Your task to perform on an android device: Where can I buy a nice beach hat? Image 0: 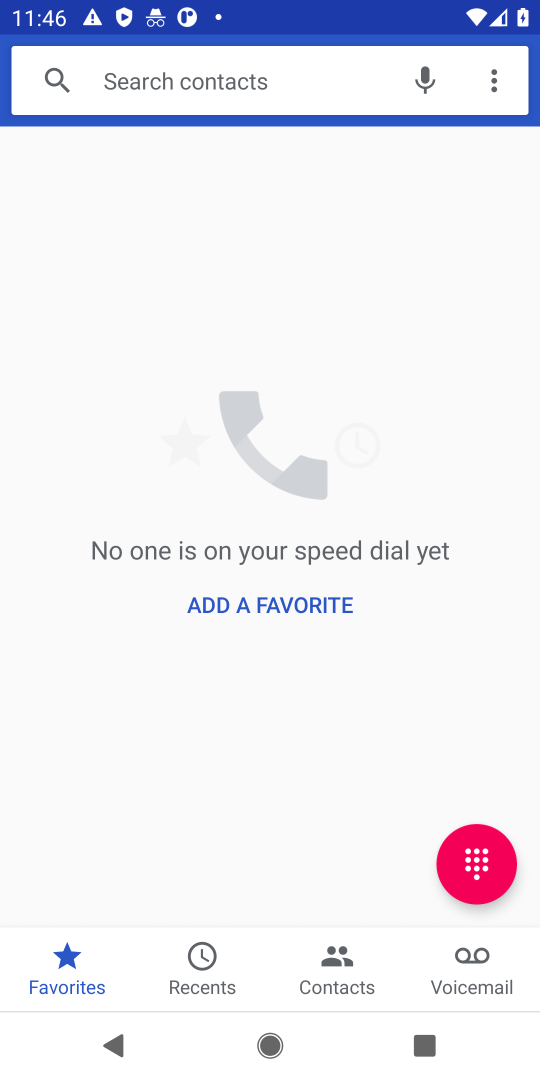
Step 0: press home button
Your task to perform on an android device: Where can I buy a nice beach hat? Image 1: 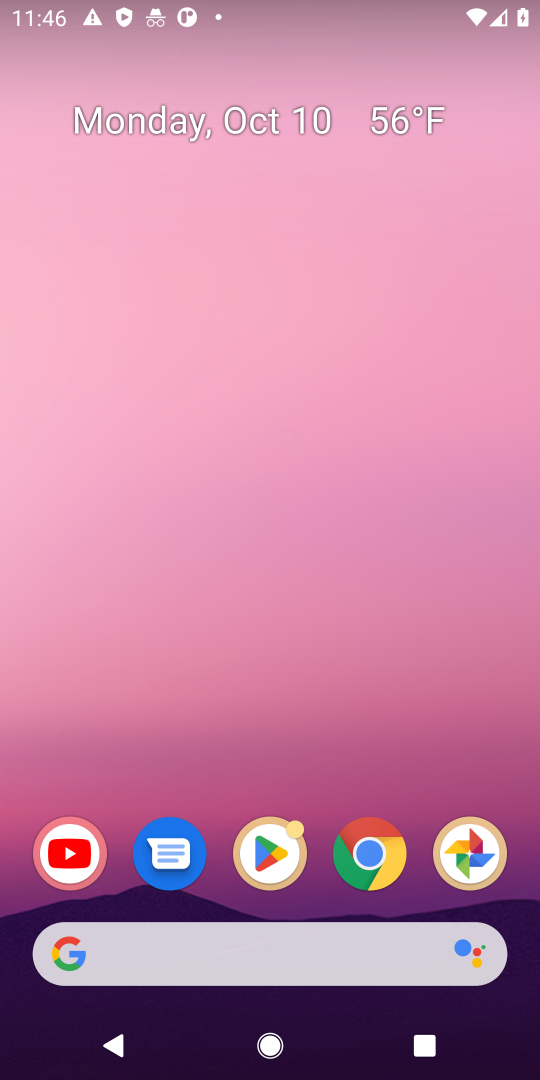
Step 1: click (376, 849)
Your task to perform on an android device: Where can I buy a nice beach hat? Image 2: 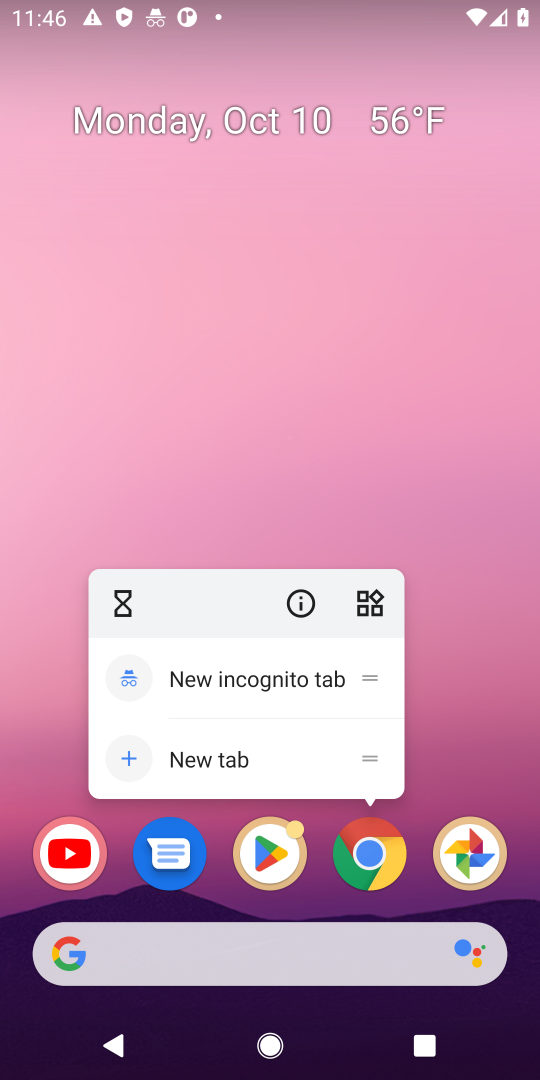
Step 2: click (367, 853)
Your task to perform on an android device: Where can I buy a nice beach hat? Image 3: 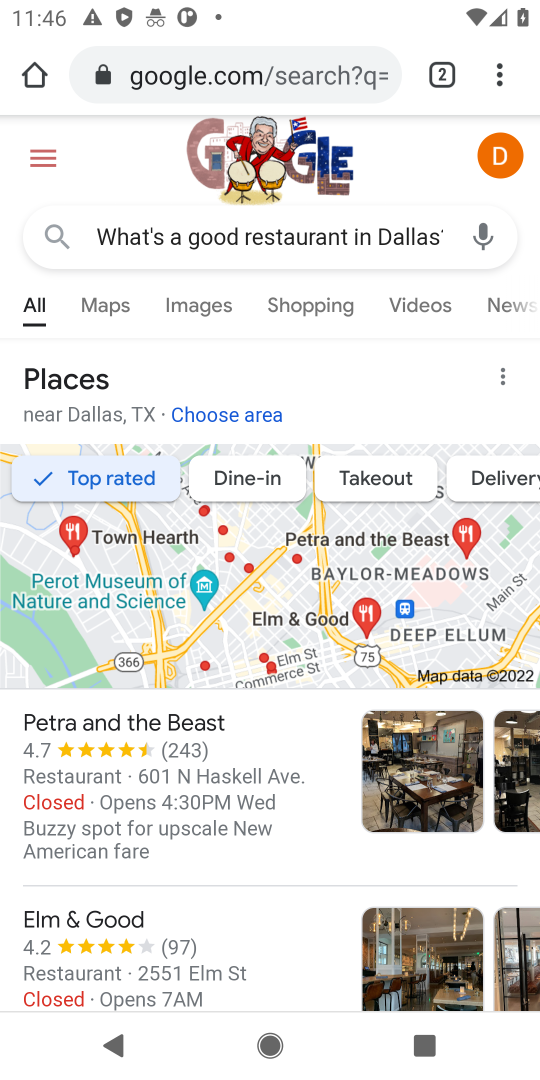
Step 3: click (154, 86)
Your task to perform on an android device: Where can I buy a nice beach hat? Image 4: 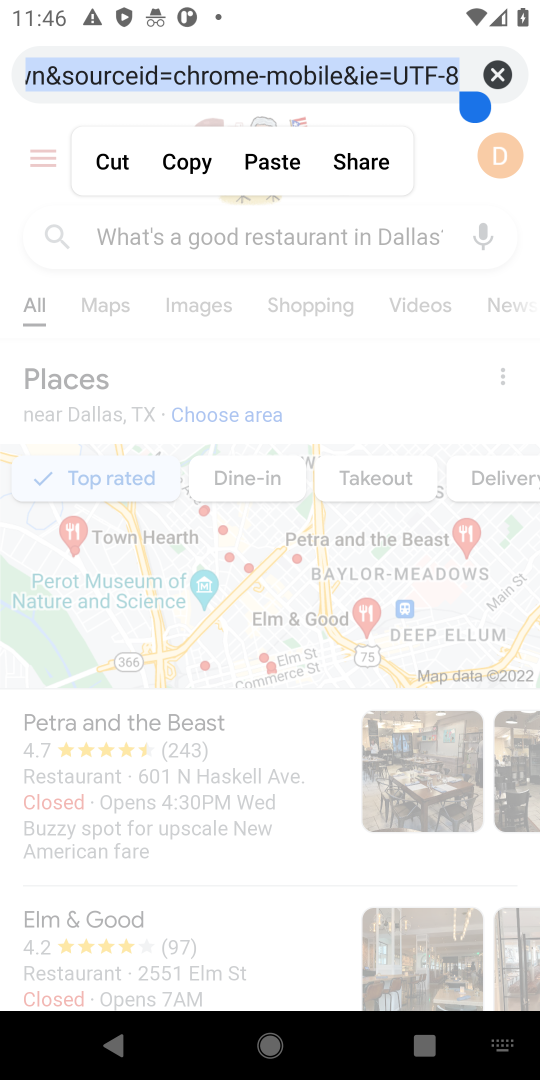
Step 4: click (500, 72)
Your task to perform on an android device: Where can I buy a nice beach hat? Image 5: 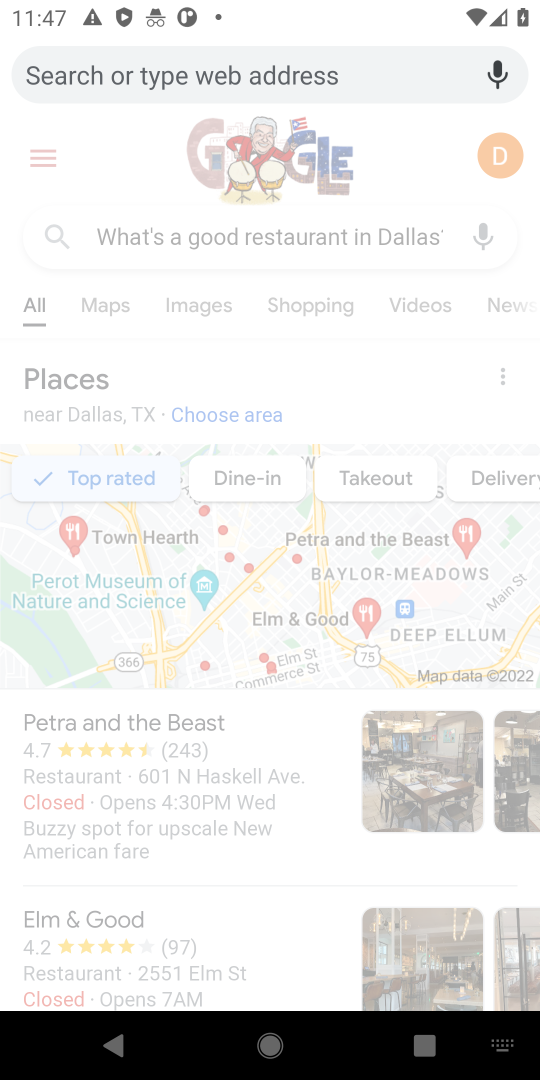
Step 5: type "Where can I buy a nice beach hat?"
Your task to perform on an android device: Where can I buy a nice beach hat? Image 6: 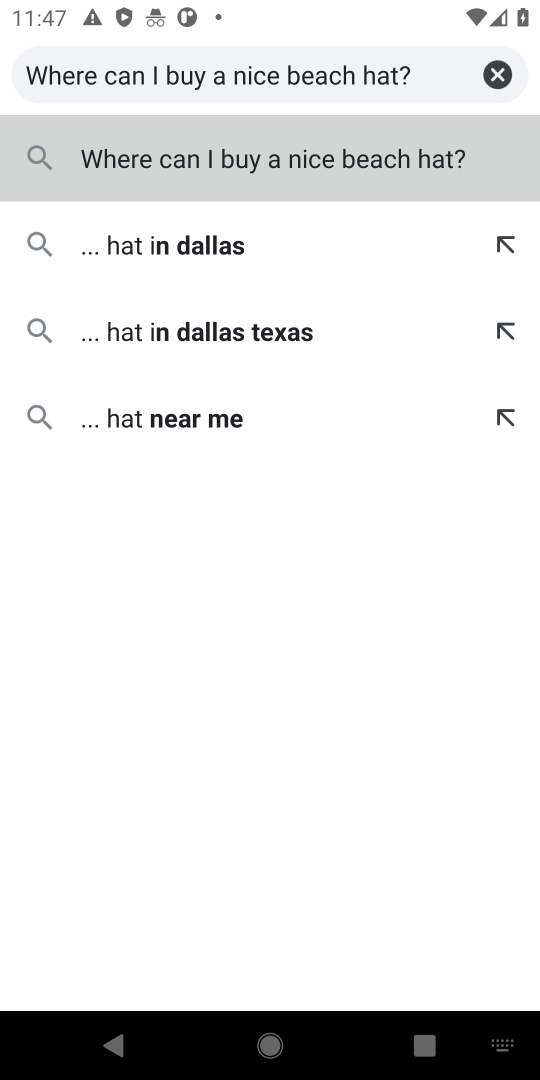
Step 6: click (251, 152)
Your task to perform on an android device: Where can I buy a nice beach hat? Image 7: 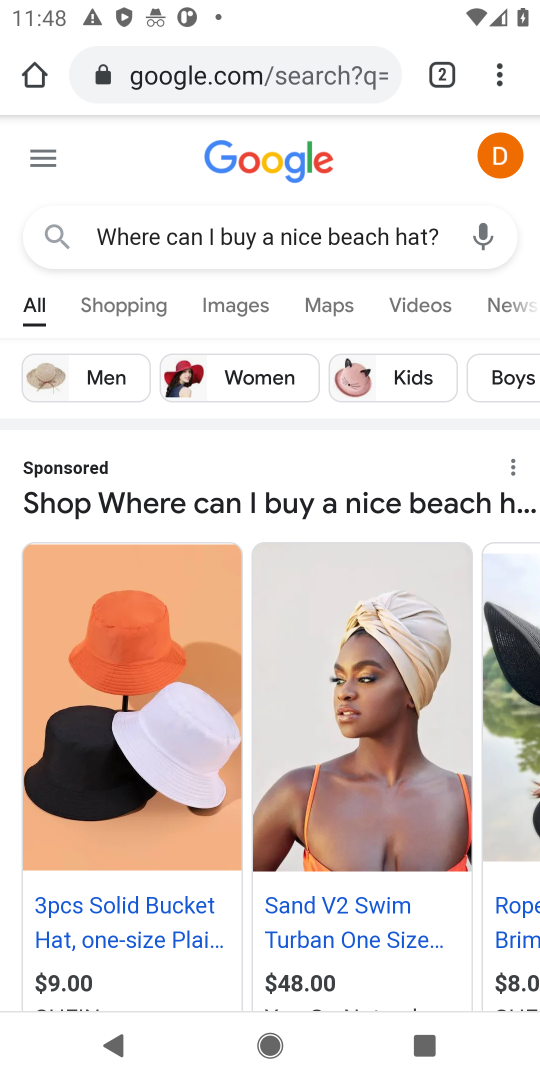
Step 7: task complete